Your task to perform on an android device: Add "logitech g502" to the cart on costco.com Image 0: 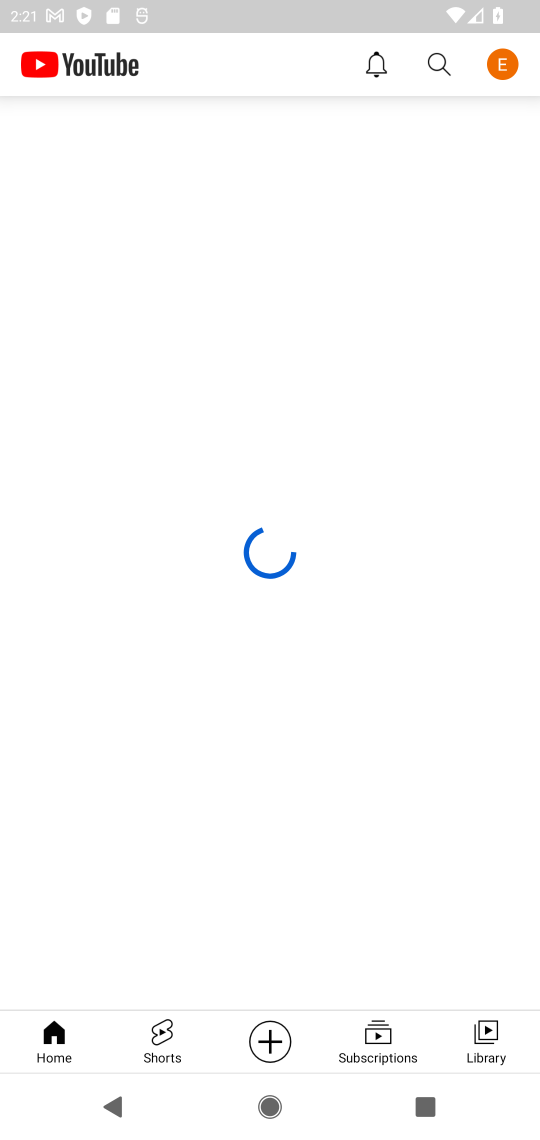
Step 0: press home button
Your task to perform on an android device: Add "logitech g502" to the cart on costco.com Image 1: 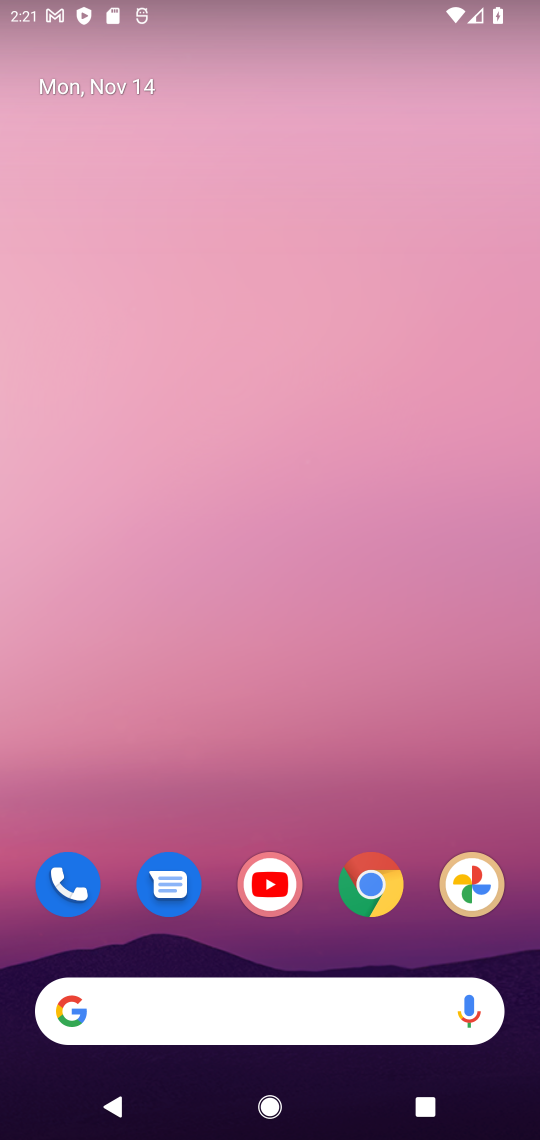
Step 1: click (379, 889)
Your task to perform on an android device: Add "logitech g502" to the cart on costco.com Image 2: 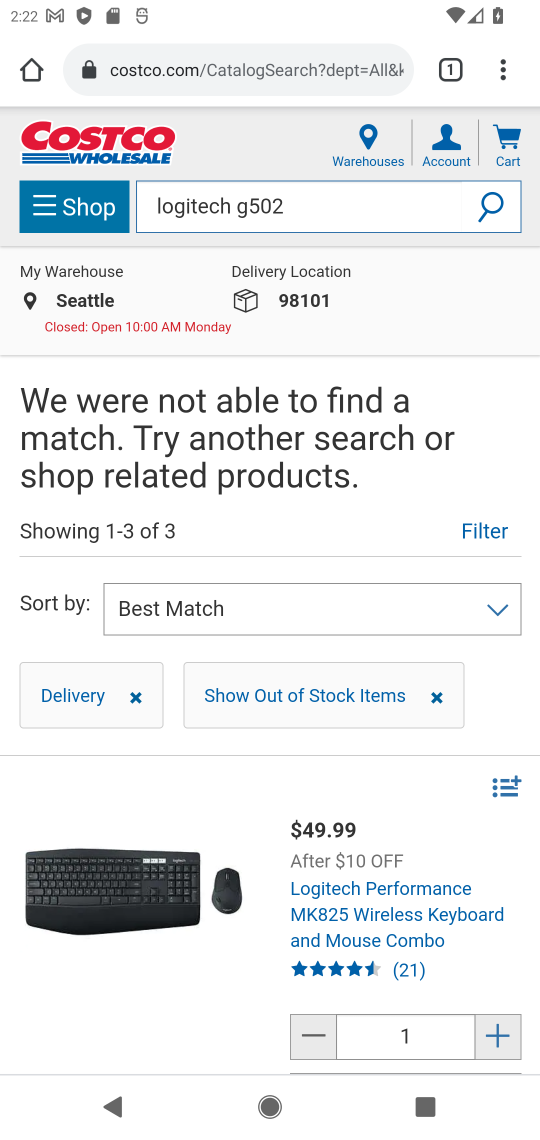
Step 2: task complete